Your task to perform on an android device: Go to Wikipedia Image 0: 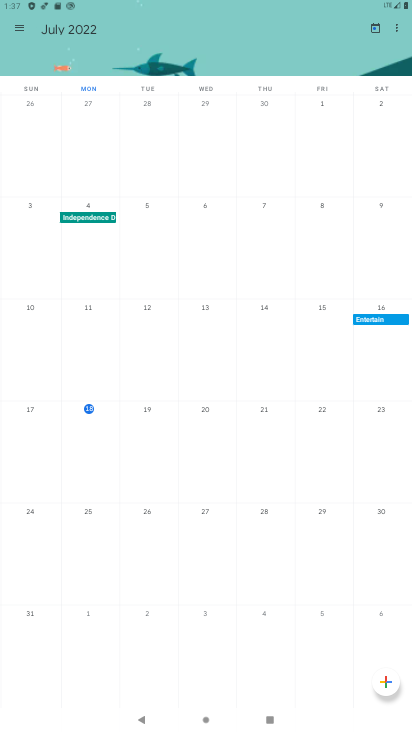
Step 0: press home button
Your task to perform on an android device: Go to Wikipedia Image 1: 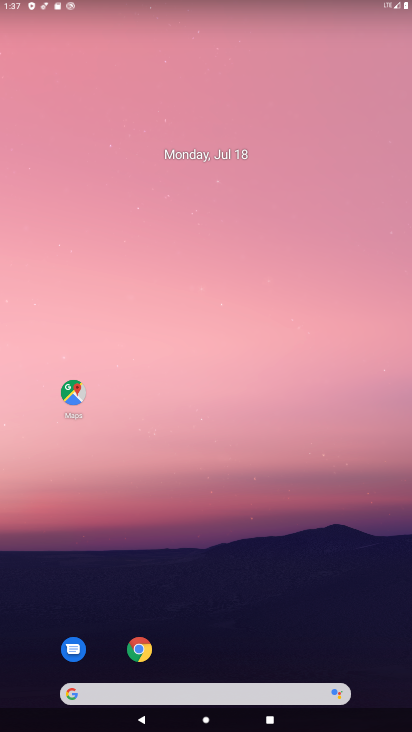
Step 1: click (121, 698)
Your task to perform on an android device: Go to Wikipedia Image 2: 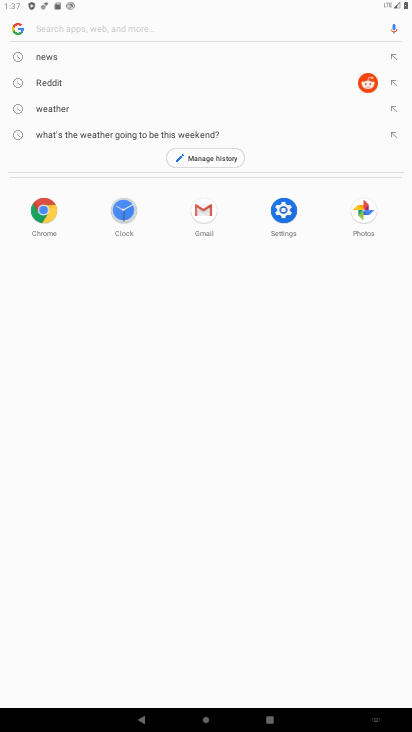
Step 2: type "wikipedia"
Your task to perform on an android device: Go to Wikipedia Image 3: 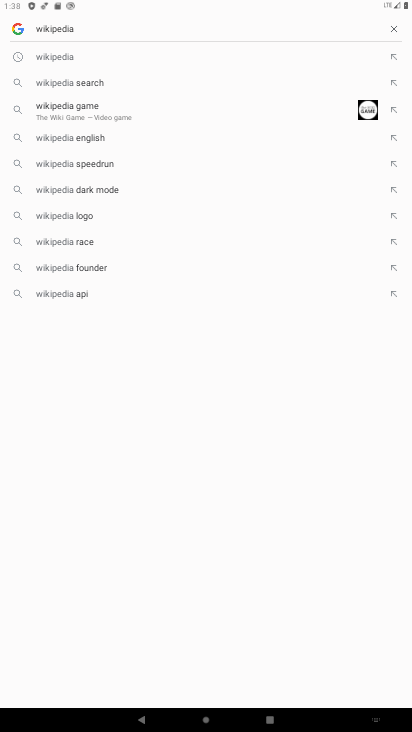
Step 3: click (81, 52)
Your task to perform on an android device: Go to Wikipedia Image 4: 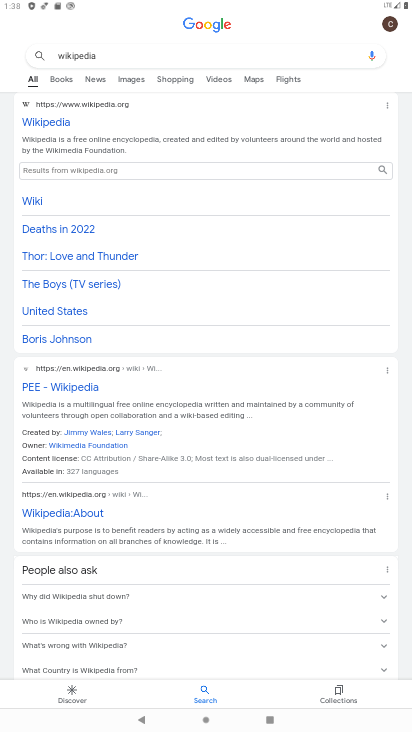
Step 4: click (52, 123)
Your task to perform on an android device: Go to Wikipedia Image 5: 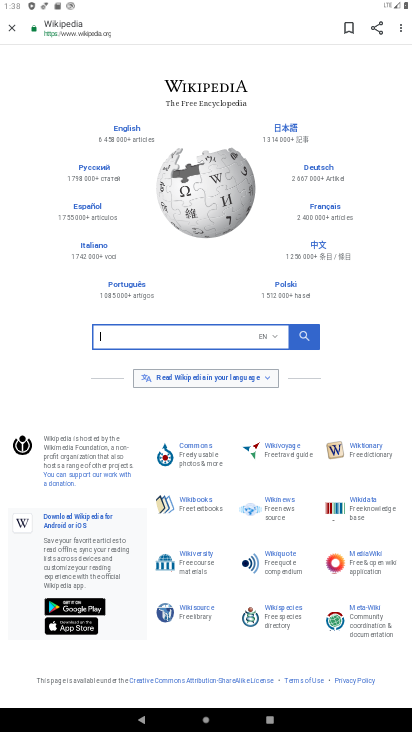
Step 5: task complete